Your task to perform on an android device: search for starred emails in the gmail app Image 0: 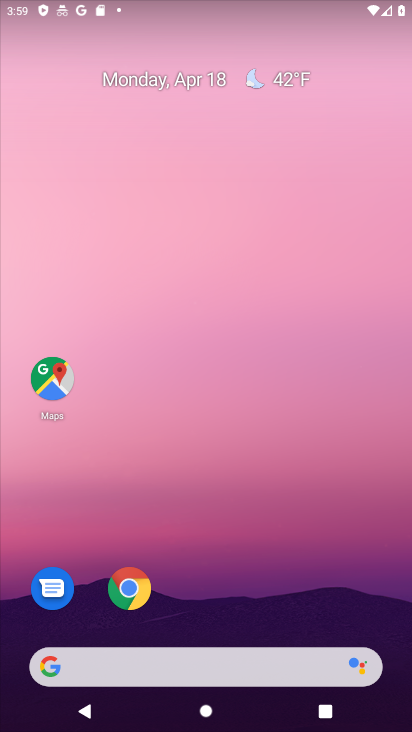
Step 0: drag from (268, 588) to (308, 202)
Your task to perform on an android device: search for starred emails in the gmail app Image 1: 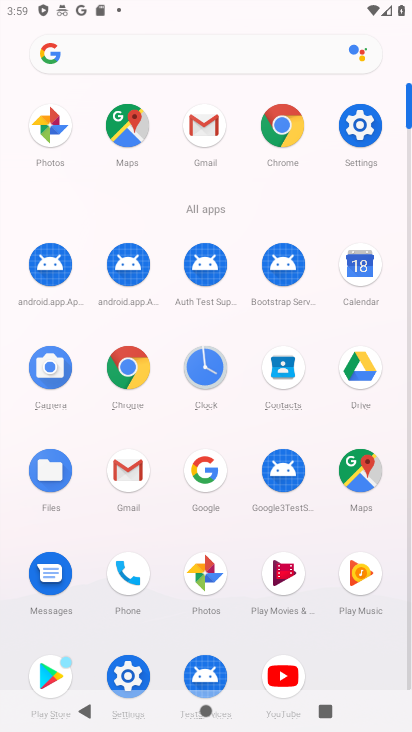
Step 1: click (146, 474)
Your task to perform on an android device: search for starred emails in the gmail app Image 2: 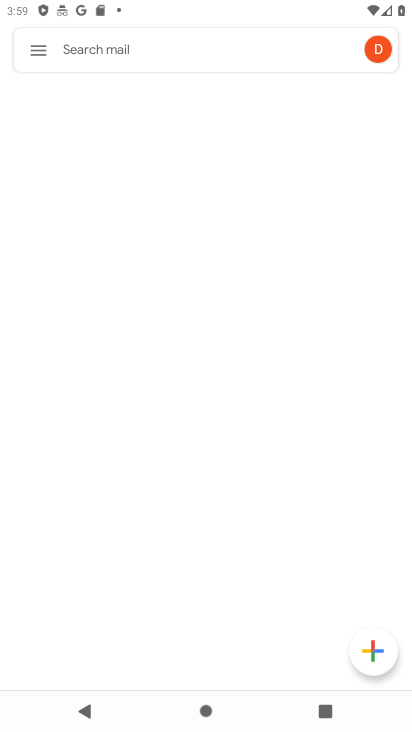
Step 2: click (41, 49)
Your task to perform on an android device: search for starred emails in the gmail app Image 3: 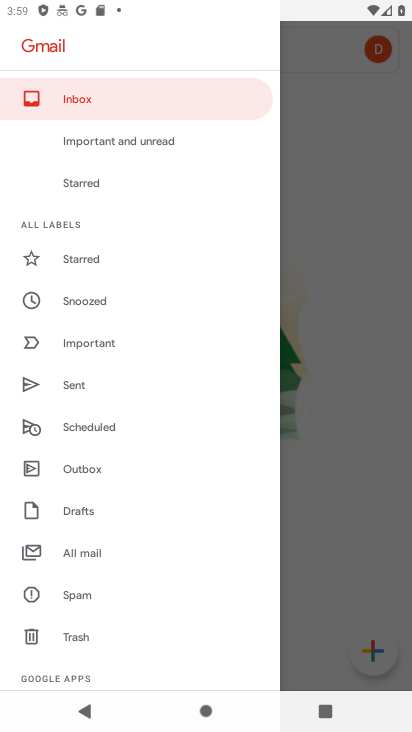
Step 3: click (91, 266)
Your task to perform on an android device: search for starred emails in the gmail app Image 4: 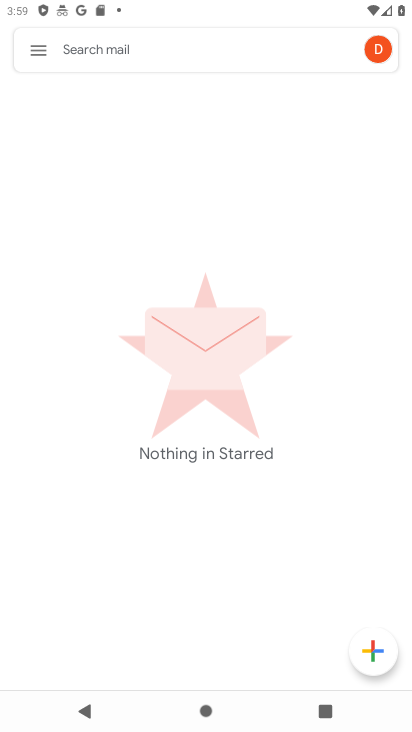
Step 4: task complete